Your task to perform on an android device: change the clock display to show seconds Image 0: 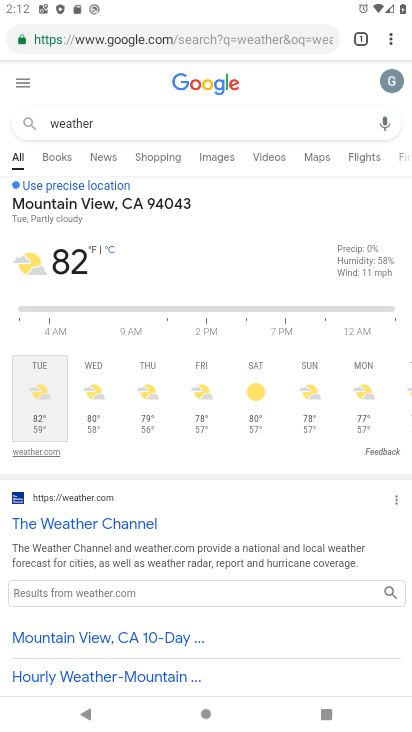
Step 0: press home button
Your task to perform on an android device: change the clock display to show seconds Image 1: 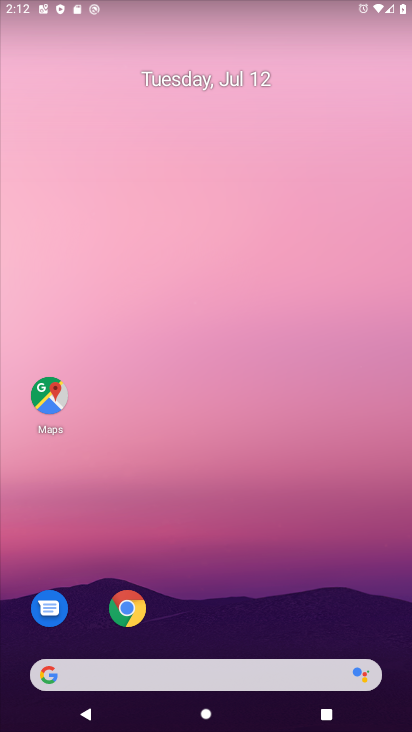
Step 1: drag from (344, 604) to (220, 128)
Your task to perform on an android device: change the clock display to show seconds Image 2: 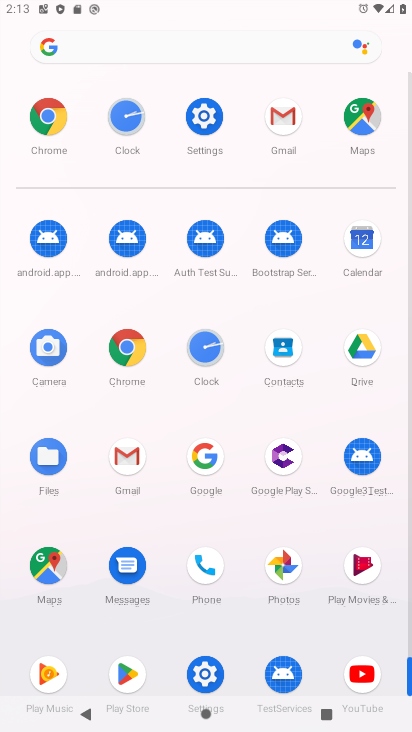
Step 2: click (208, 339)
Your task to perform on an android device: change the clock display to show seconds Image 3: 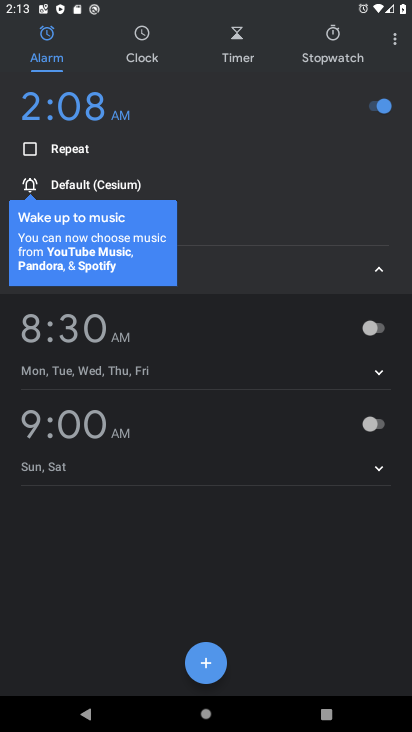
Step 3: click (395, 38)
Your task to perform on an android device: change the clock display to show seconds Image 4: 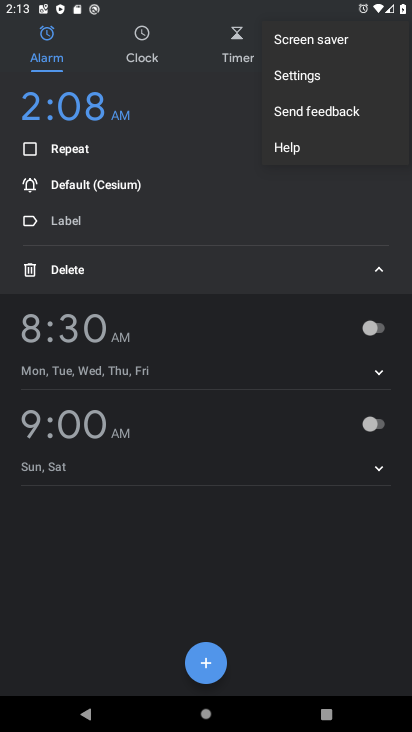
Step 4: click (306, 80)
Your task to perform on an android device: change the clock display to show seconds Image 5: 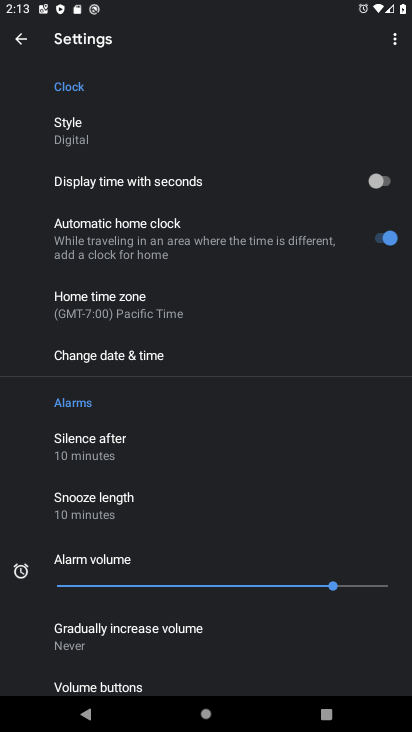
Step 5: click (375, 181)
Your task to perform on an android device: change the clock display to show seconds Image 6: 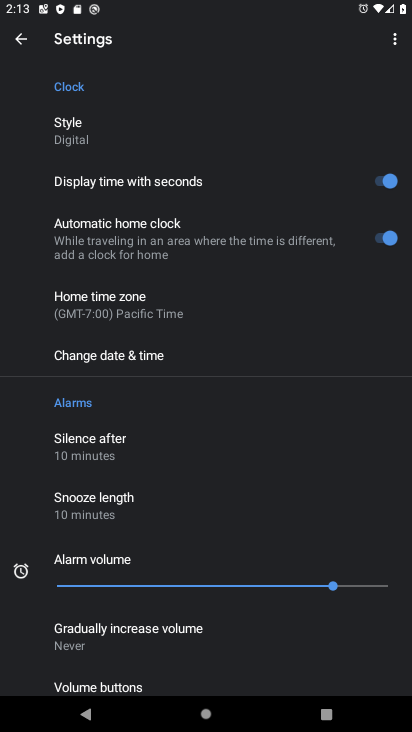
Step 6: task complete